Your task to perform on an android device: turn smart compose on in the gmail app Image 0: 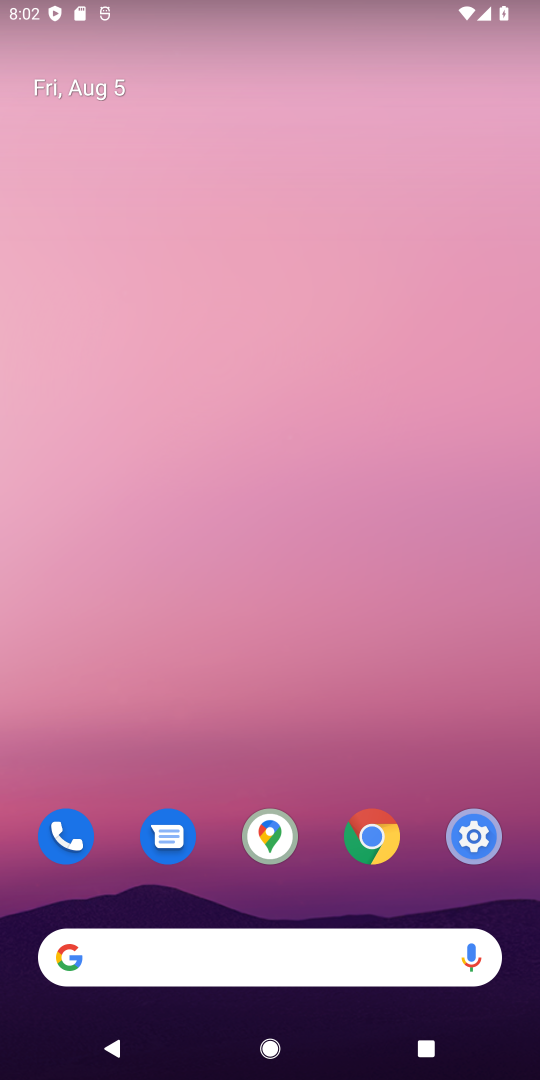
Step 0: drag from (284, 729) to (241, 208)
Your task to perform on an android device: turn smart compose on in the gmail app Image 1: 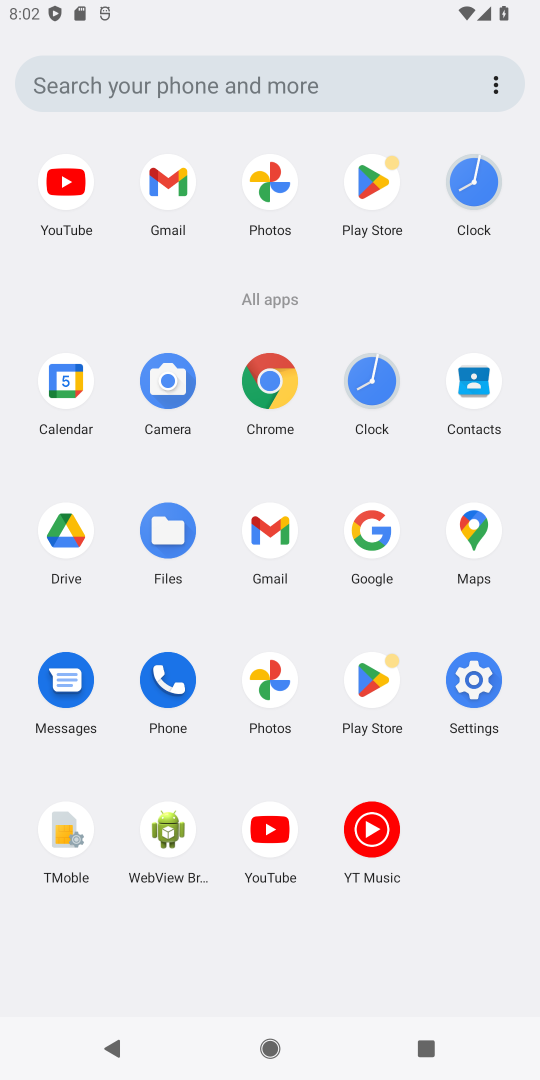
Step 1: click (170, 184)
Your task to perform on an android device: turn smart compose on in the gmail app Image 2: 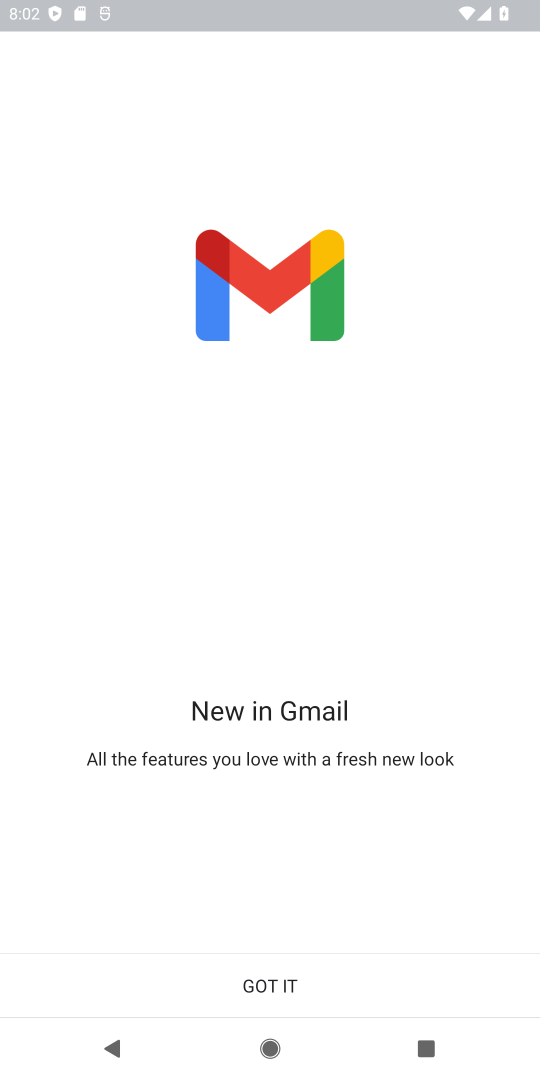
Step 2: click (264, 978)
Your task to perform on an android device: turn smart compose on in the gmail app Image 3: 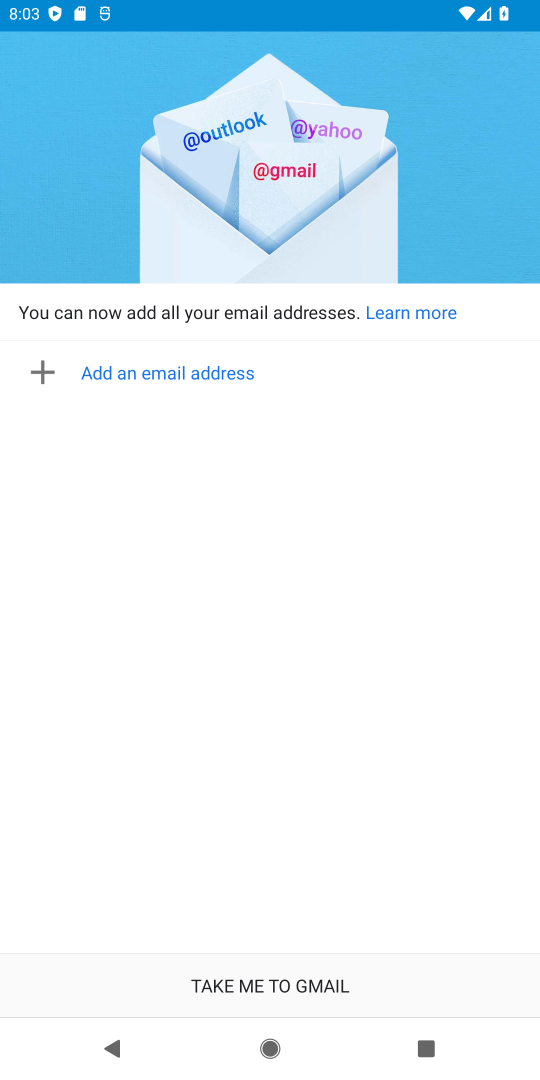
Step 3: click (255, 976)
Your task to perform on an android device: turn smart compose on in the gmail app Image 4: 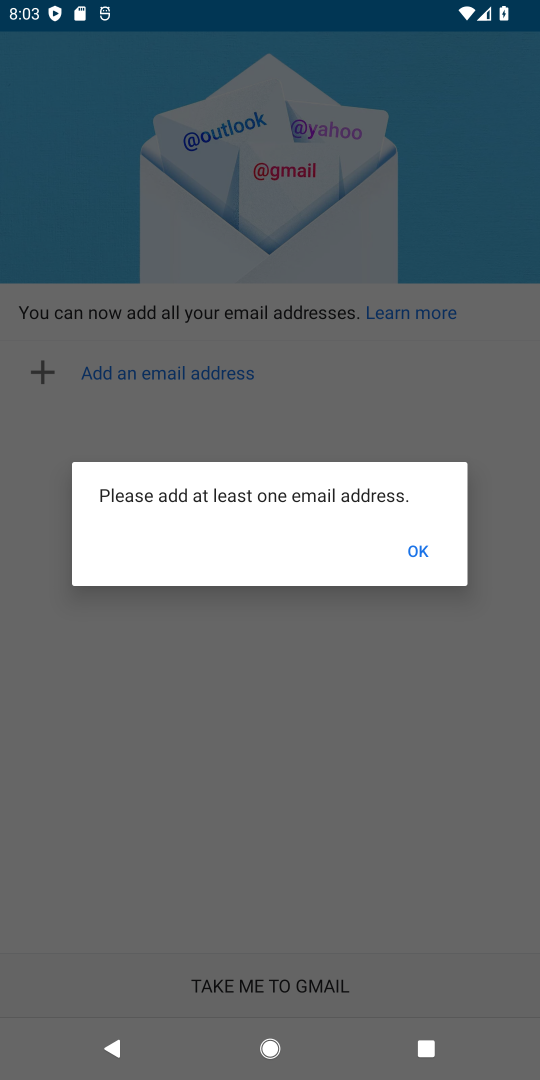
Step 4: click (412, 550)
Your task to perform on an android device: turn smart compose on in the gmail app Image 5: 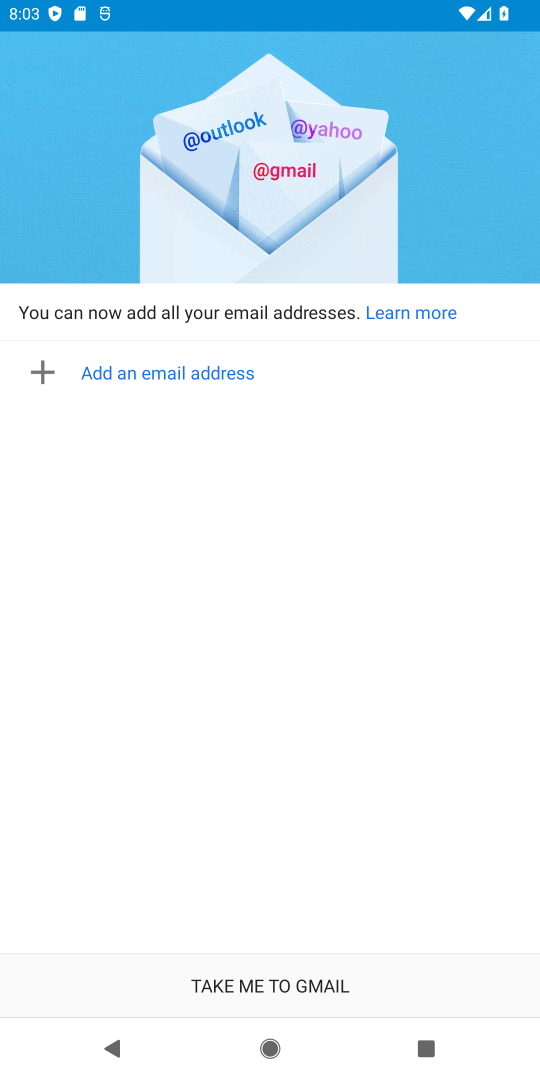
Step 5: click (280, 990)
Your task to perform on an android device: turn smart compose on in the gmail app Image 6: 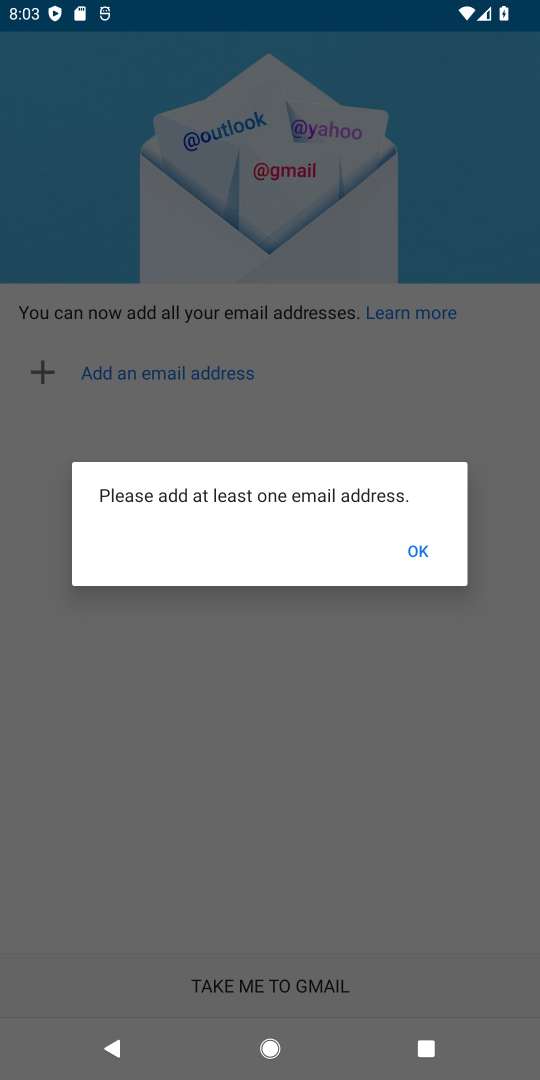
Step 6: click (425, 539)
Your task to perform on an android device: turn smart compose on in the gmail app Image 7: 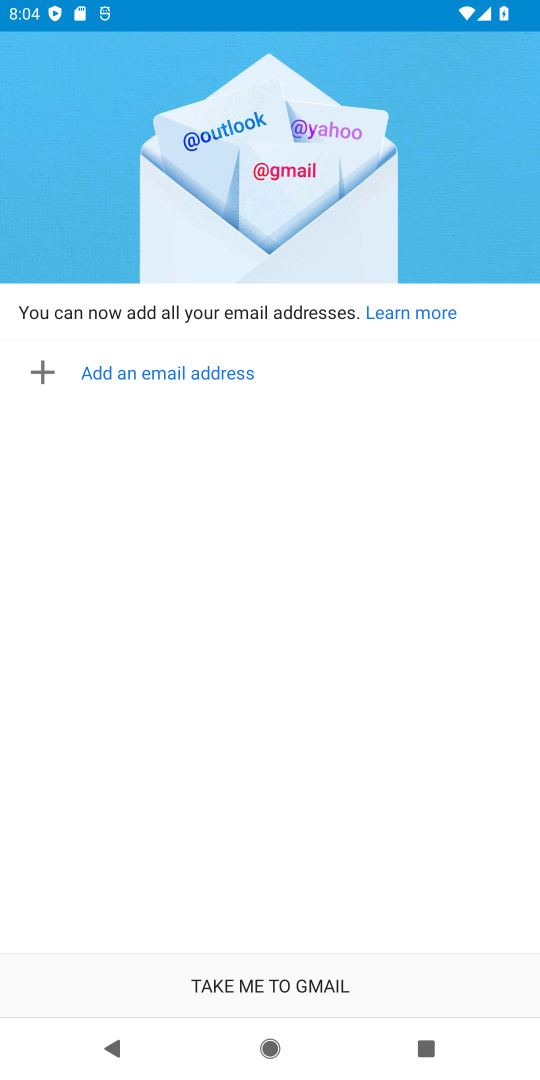
Step 7: task complete